Your task to perform on an android device: turn off smart reply in the gmail app Image 0: 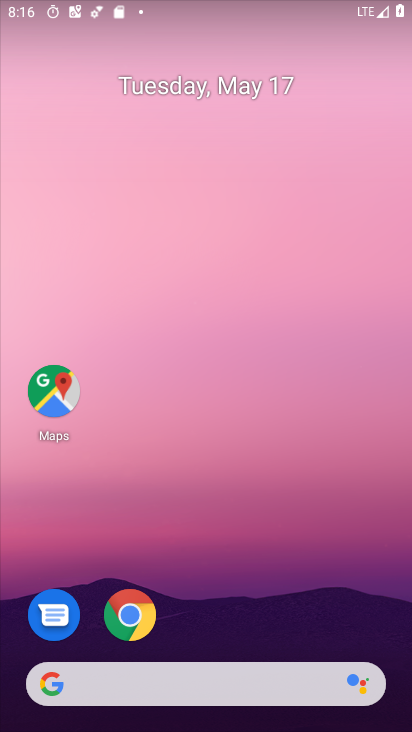
Step 0: drag from (168, 478) to (175, 348)
Your task to perform on an android device: turn off smart reply in the gmail app Image 1: 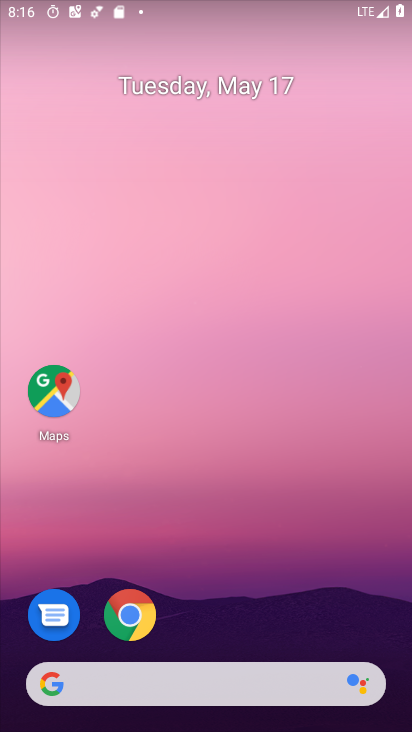
Step 1: drag from (217, 591) to (233, 88)
Your task to perform on an android device: turn off smart reply in the gmail app Image 2: 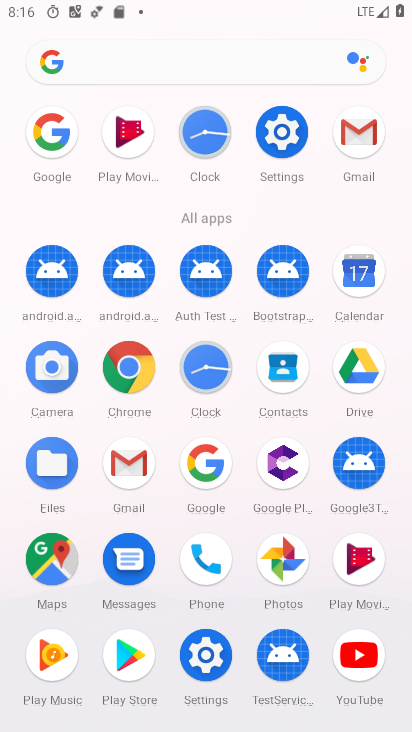
Step 2: click (367, 151)
Your task to perform on an android device: turn off smart reply in the gmail app Image 3: 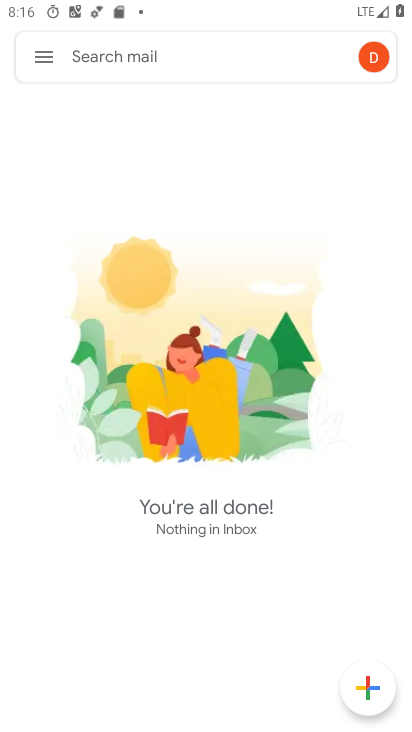
Step 3: click (50, 61)
Your task to perform on an android device: turn off smart reply in the gmail app Image 4: 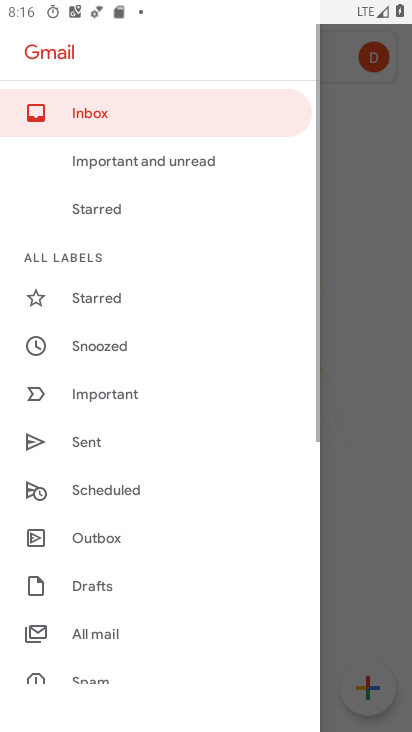
Step 4: drag from (148, 659) to (157, 121)
Your task to perform on an android device: turn off smart reply in the gmail app Image 5: 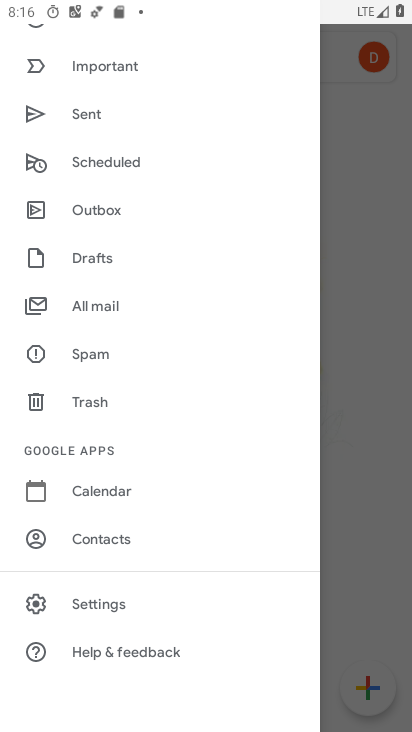
Step 5: click (105, 608)
Your task to perform on an android device: turn off smart reply in the gmail app Image 6: 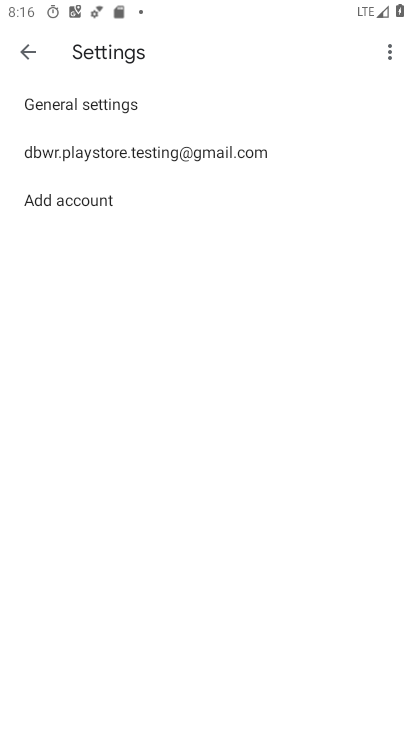
Step 6: click (110, 160)
Your task to perform on an android device: turn off smart reply in the gmail app Image 7: 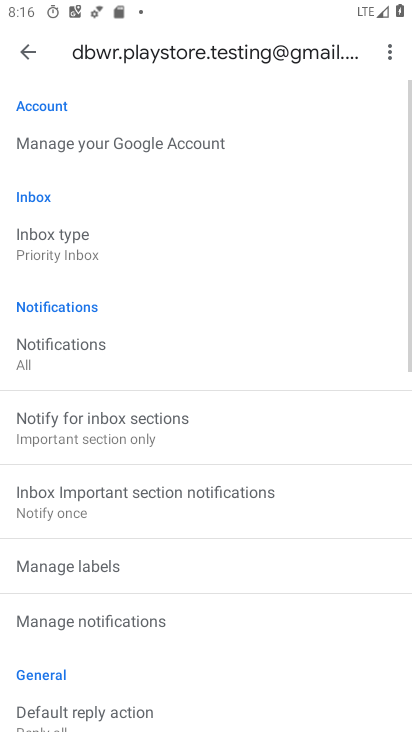
Step 7: drag from (132, 639) to (138, 201)
Your task to perform on an android device: turn off smart reply in the gmail app Image 8: 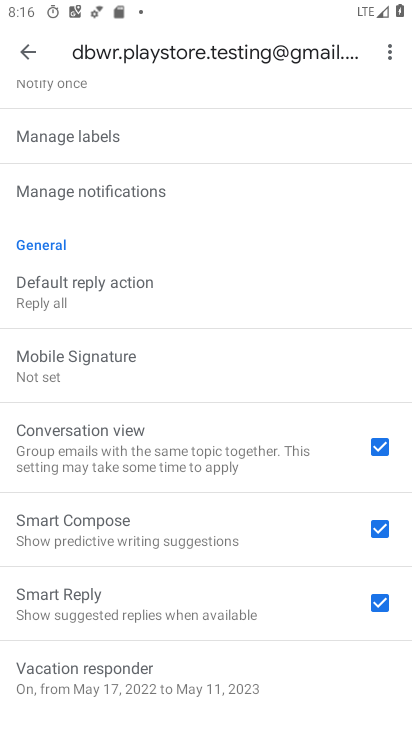
Step 8: click (387, 605)
Your task to perform on an android device: turn off smart reply in the gmail app Image 9: 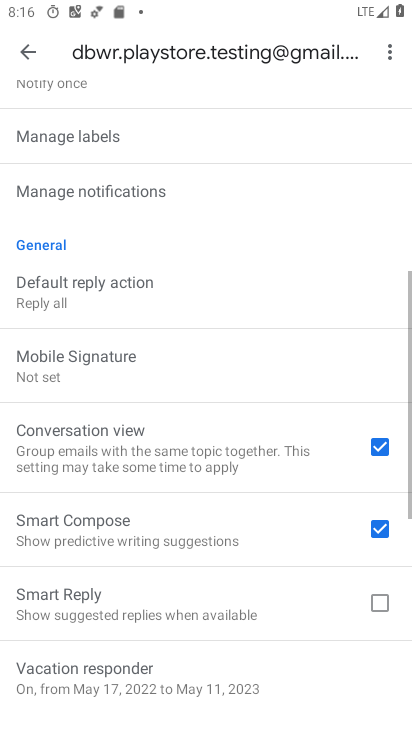
Step 9: task complete